Your task to perform on an android device: turn on javascript in the chrome app Image 0: 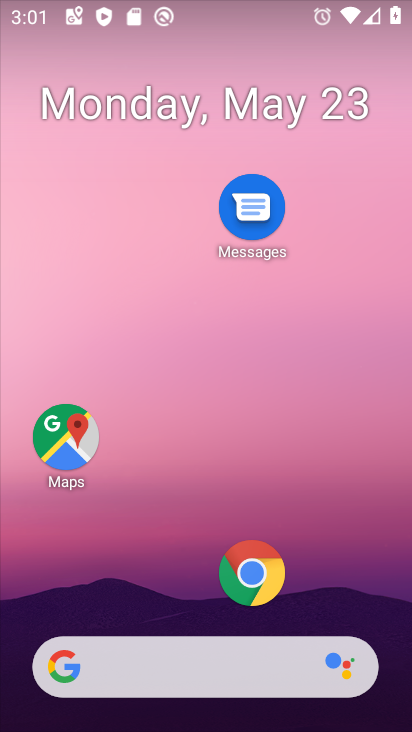
Step 0: drag from (245, 718) to (237, 1)
Your task to perform on an android device: turn on javascript in the chrome app Image 1: 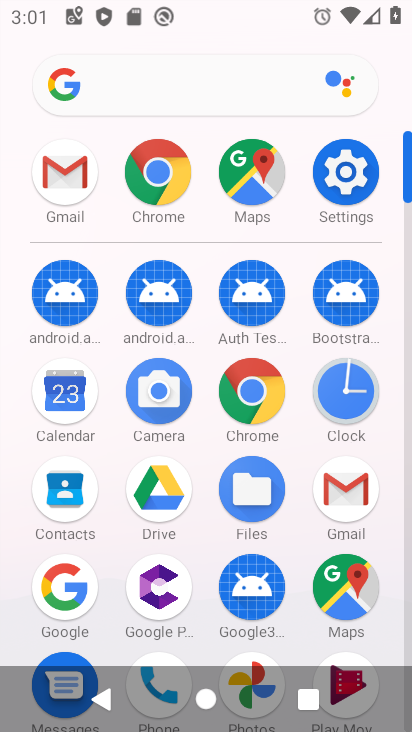
Step 1: click (236, 397)
Your task to perform on an android device: turn on javascript in the chrome app Image 2: 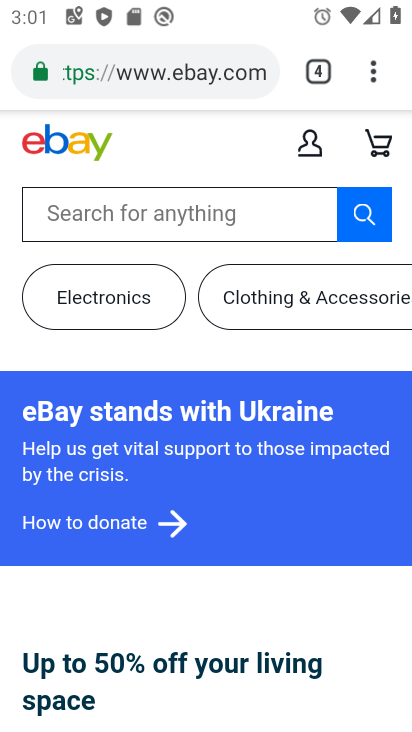
Step 2: click (371, 59)
Your task to perform on an android device: turn on javascript in the chrome app Image 3: 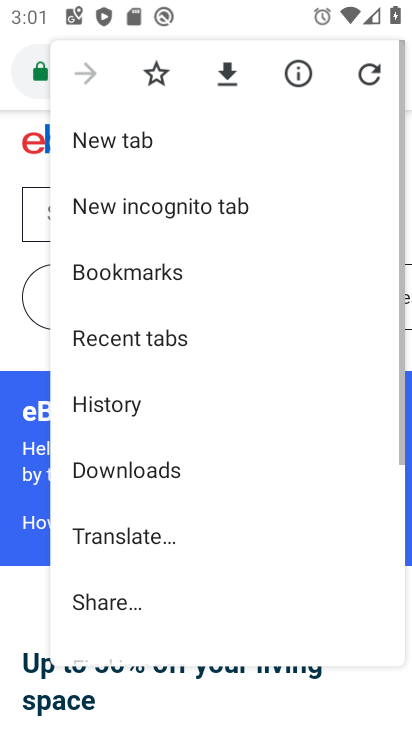
Step 3: drag from (168, 594) to (241, 101)
Your task to perform on an android device: turn on javascript in the chrome app Image 4: 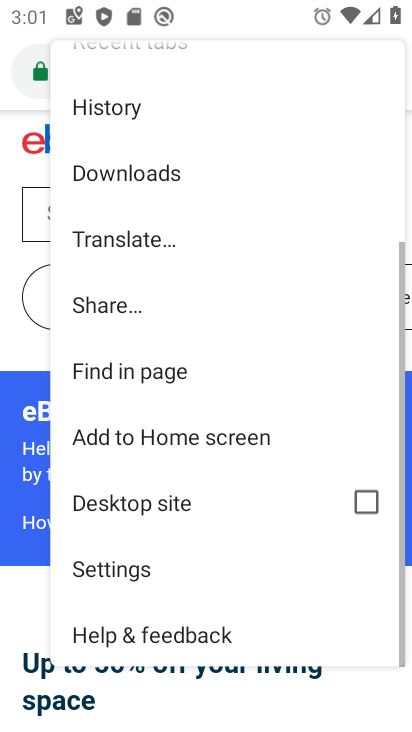
Step 4: click (151, 569)
Your task to perform on an android device: turn on javascript in the chrome app Image 5: 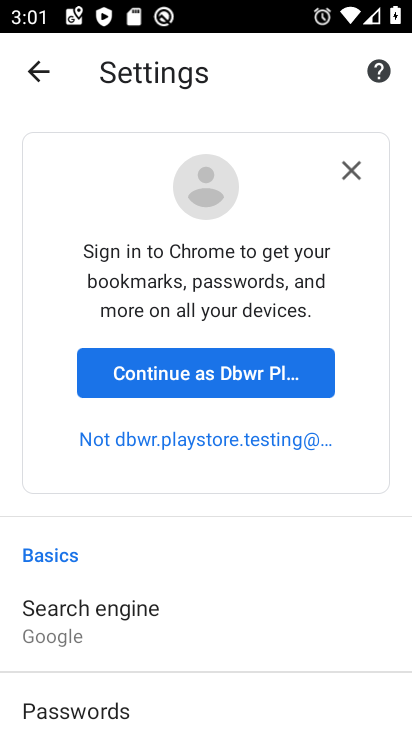
Step 5: drag from (226, 661) to (259, 37)
Your task to perform on an android device: turn on javascript in the chrome app Image 6: 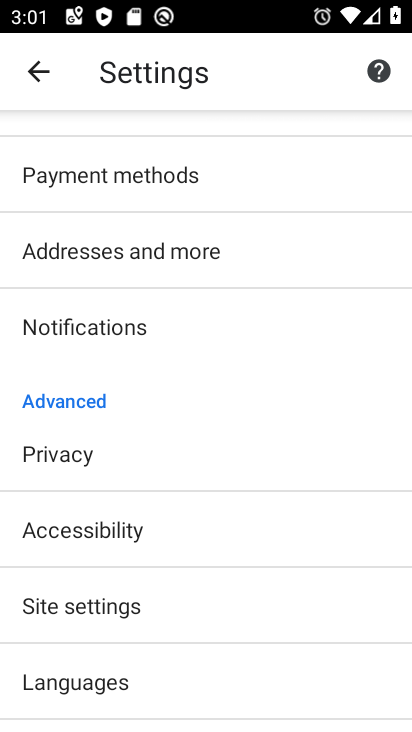
Step 6: click (157, 617)
Your task to perform on an android device: turn on javascript in the chrome app Image 7: 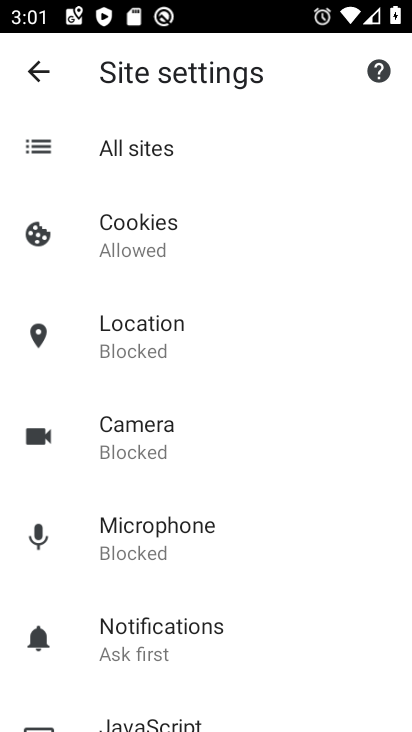
Step 7: drag from (190, 677) to (260, 288)
Your task to perform on an android device: turn on javascript in the chrome app Image 8: 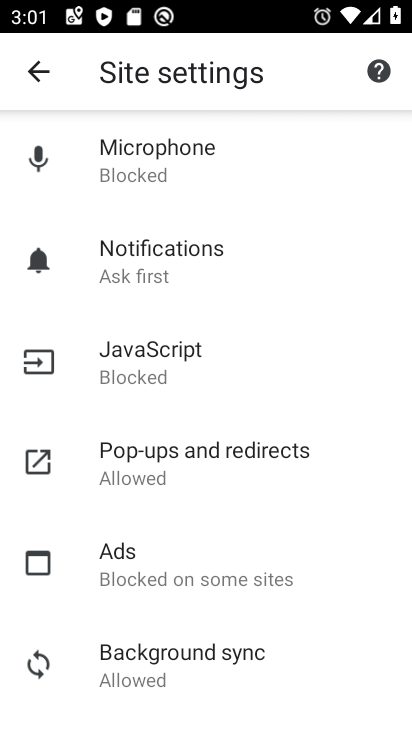
Step 8: click (234, 425)
Your task to perform on an android device: turn on javascript in the chrome app Image 9: 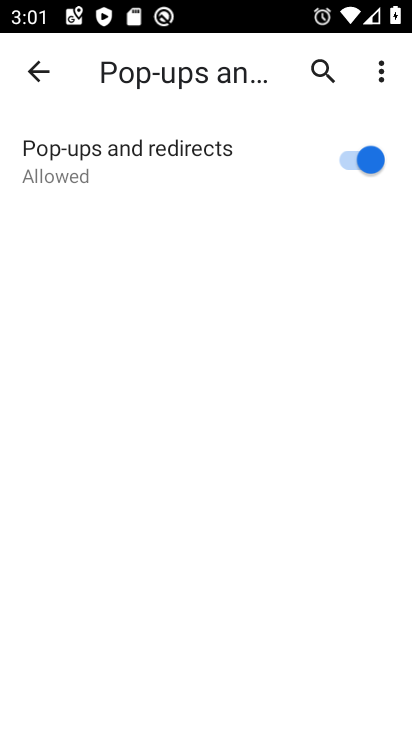
Step 9: press back button
Your task to perform on an android device: turn on javascript in the chrome app Image 10: 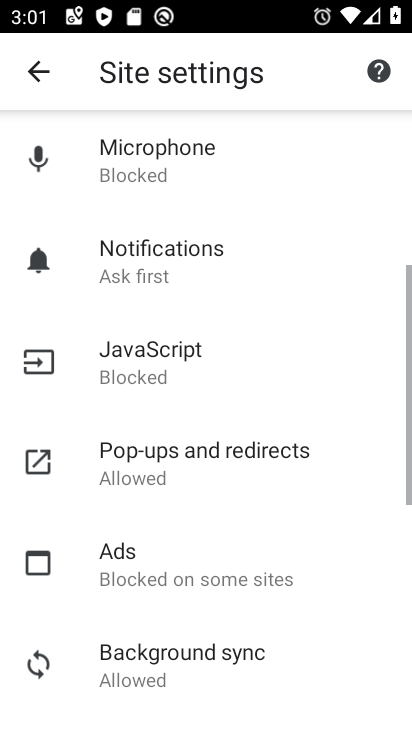
Step 10: click (202, 350)
Your task to perform on an android device: turn on javascript in the chrome app Image 11: 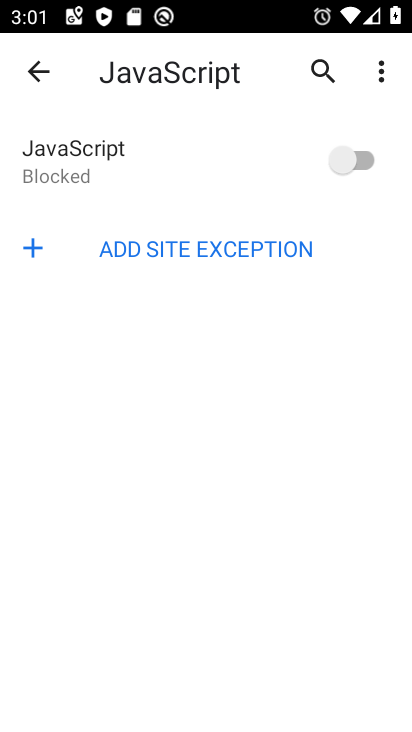
Step 11: task complete